Your task to perform on an android device: set an alarm Image 0: 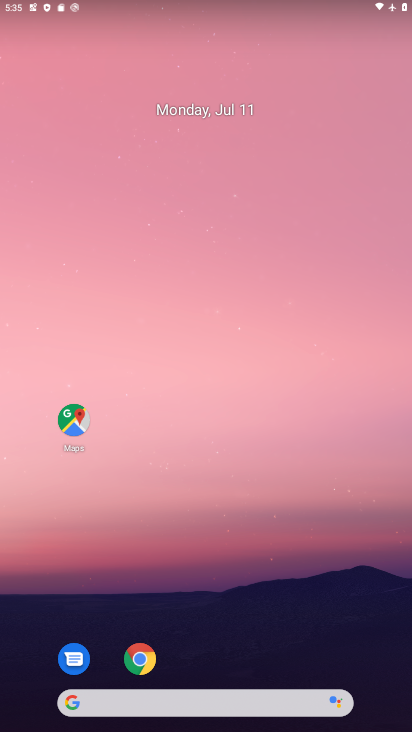
Step 0: drag from (371, 662) to (332, 85)
Your task to perform on an android device: set an alarm Image 1: 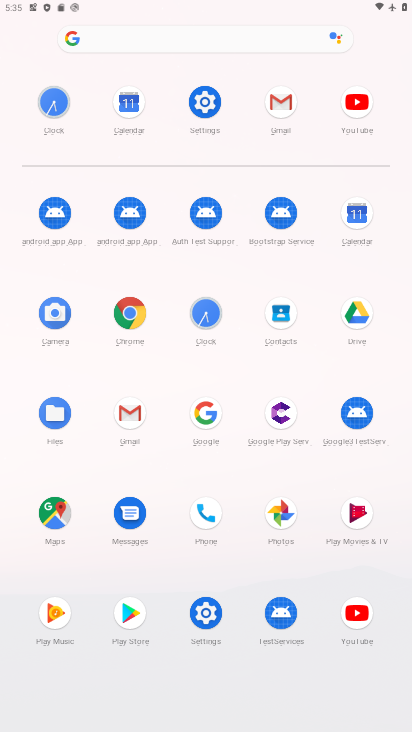
Step 1: click (205, 315)
Your task to perform on an android device: set an alarm Image 2: 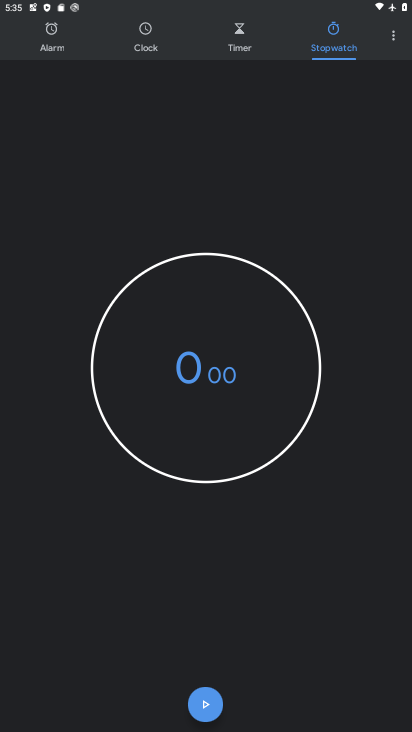
Step 2: click (46, 39)
Your task to perform on an android device: set an alarm Image 3: 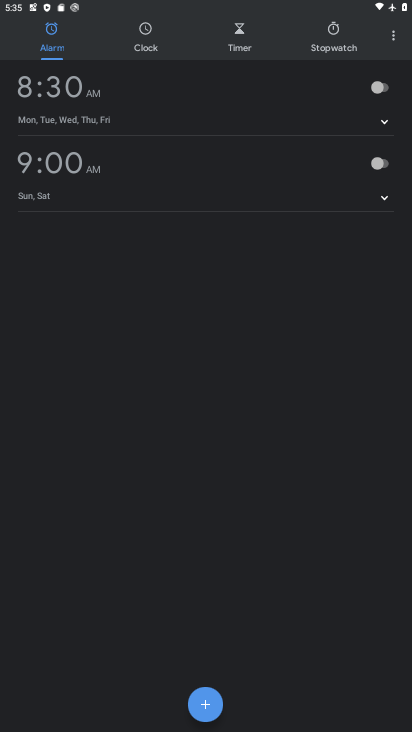
Step 3: click (59, 101)
Your task to perform on an android device: set an alarm Image 4: 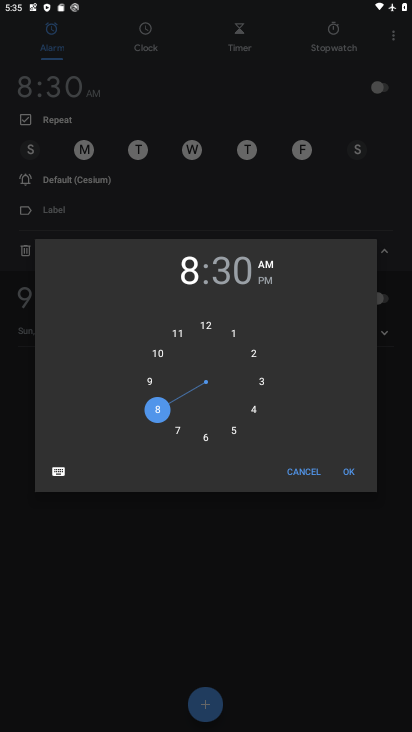
Step 4: click (207, 438)
Your task to perform on an android device: set an alarm Image 5: 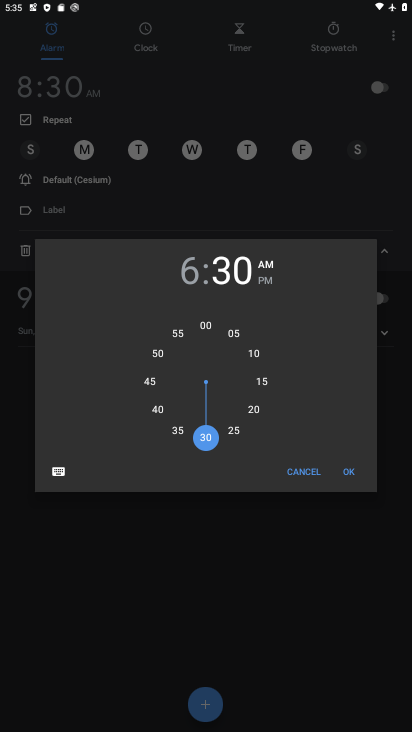
Step 5: click (209, 327)
Your task to perform on an android device: set an alarm Image 6: 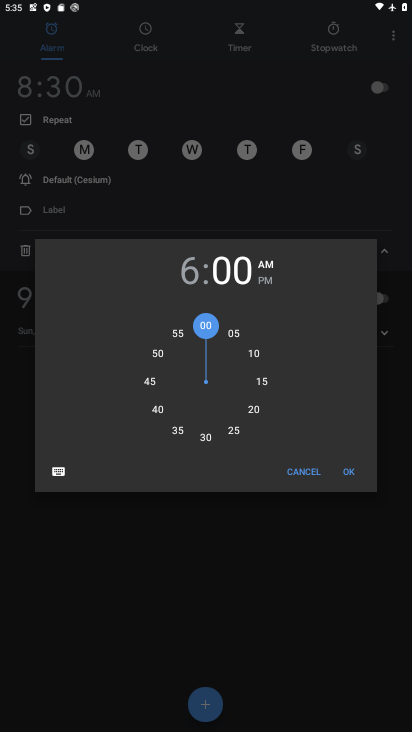
Step 6: click (347, 474)
Your task to perform on an android device: set an alarm Image 7: 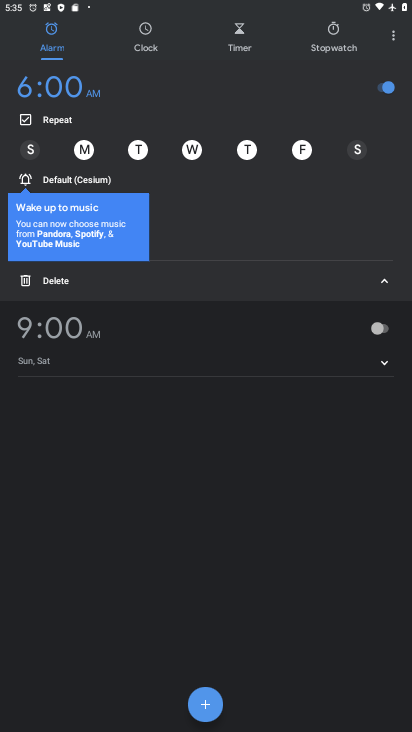
Step 7: click (356, 148)
Your task to perform on an android device: set an alarm Image 8: 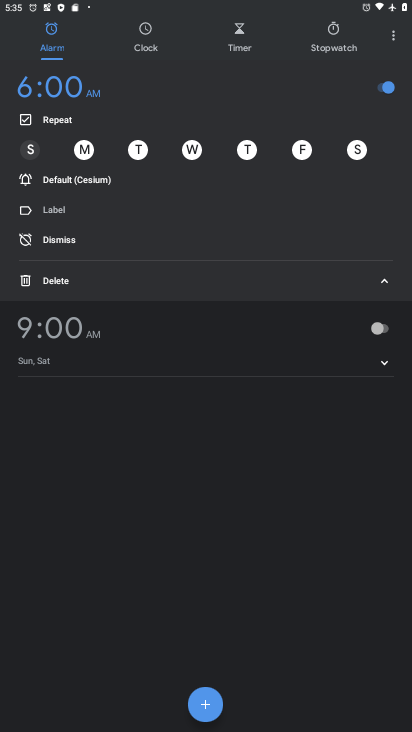
Step 8: click (382, 284)
Your task to perform on an android device: set an alarm Image 9: 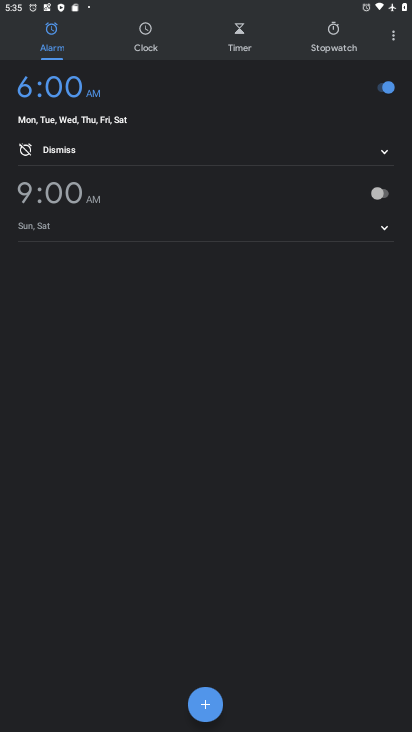
Step 9: task complete